Your task to perform on an android device: Go to accessibility settings Image 0: 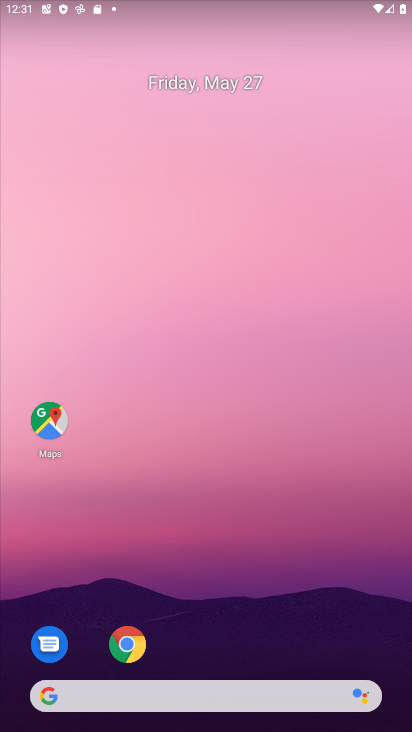
Step 0: drag from (368, 631) to (189, 17)
Your task to perform on an android device: Go to accessibility settings Image 1: 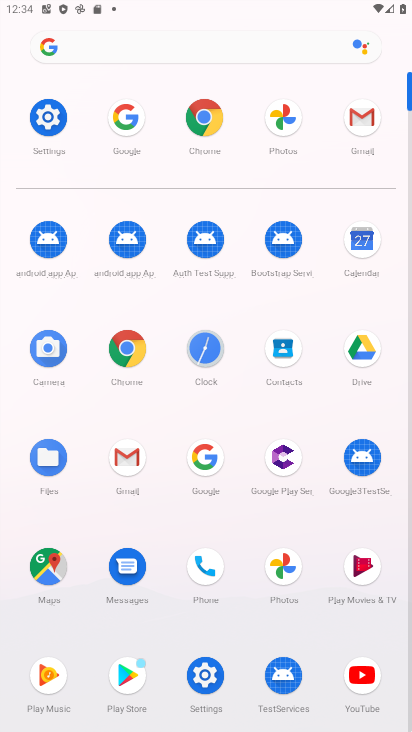
Step 1: click (209, 674)
Your task to perform on an android device: Go to accessibility settings Image 2: 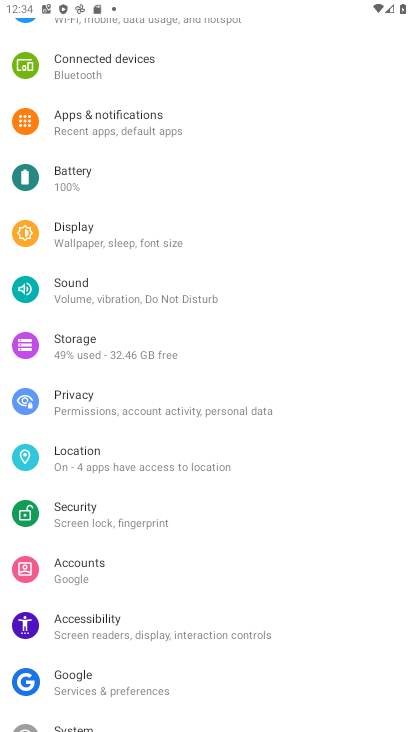
Step 2: click (120, 641)
Your task to perform on an android device: Go to accessibility settings Image 3: 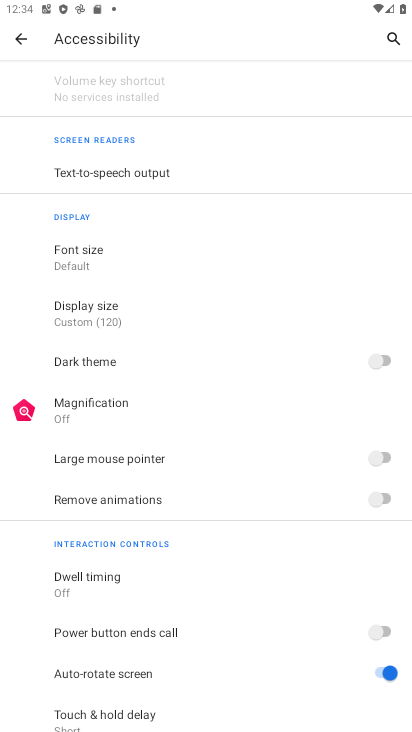
Step 3: task complete